Your task to perform on an android device: set the stopwatch Image 0: 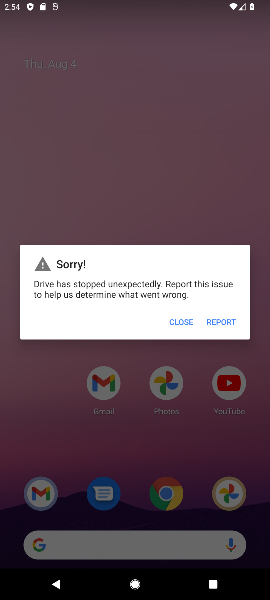
Step 0: drag from (33, 569) to (135, 187)
Your task to perform on an android device: set the stopwatch Image 1: 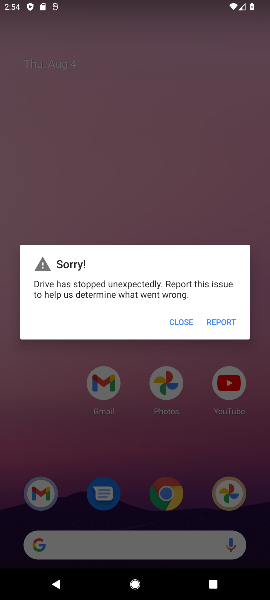
Step 1: press home button
Your task to perform on an android device: set the stopwatch Image 2: 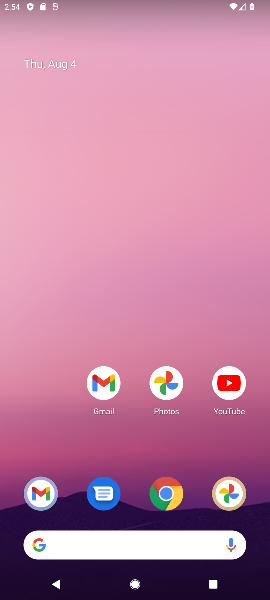
Step 2: drag from (70, 511) to (171, 158)
Your task to perform on an android device: set the stopwatch Image 3: 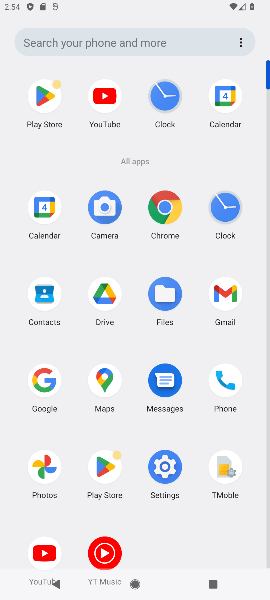
Step 3: click (229, 214)
Your task to perform on an android device: set the stopwatch Image 4: 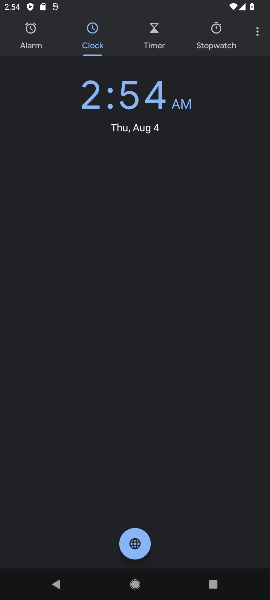
Step 4: click (215, 23)
Your task to perform on an android device: set the stopwatch Image 5: 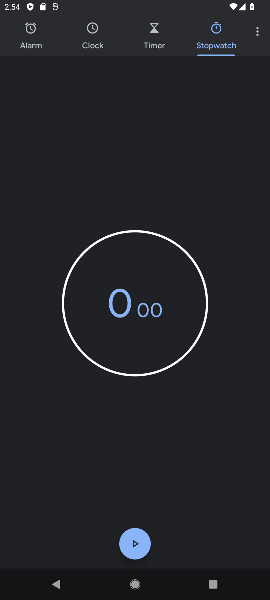
Step 5: click (127, 535)
Your task to perform on an android device: set the stopwatch Image 6: 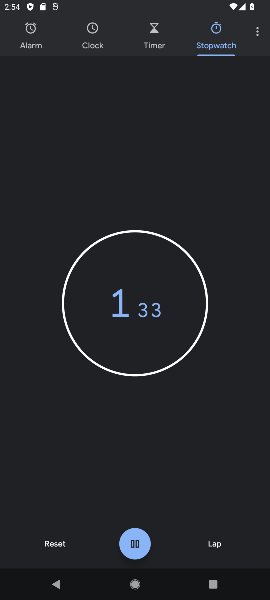
Step 6: click (137, 550)
Your task to perform on an android device: set the stopwatch Image 7: 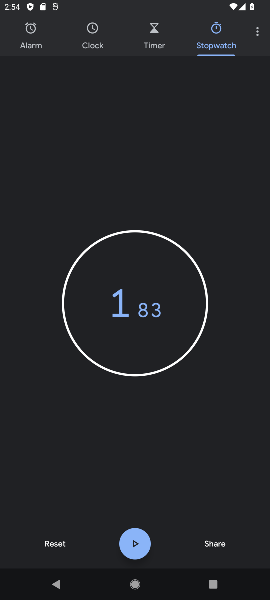
Step 7: task complete